Your task to perform on an android device: Open the map Image 0: 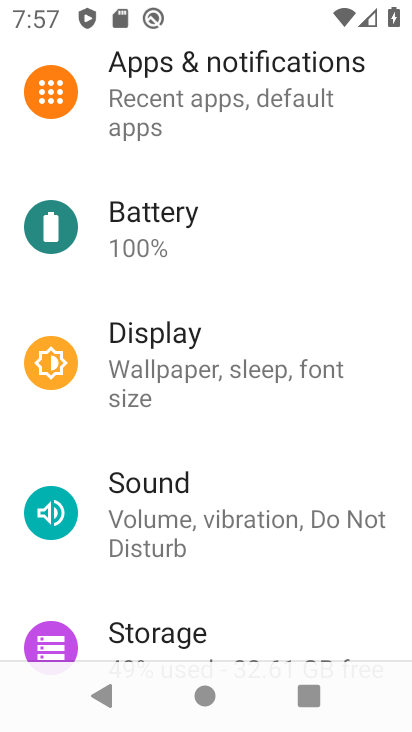
Step 0: press home button
Your task to perform on an android device: Open the map Image 1: 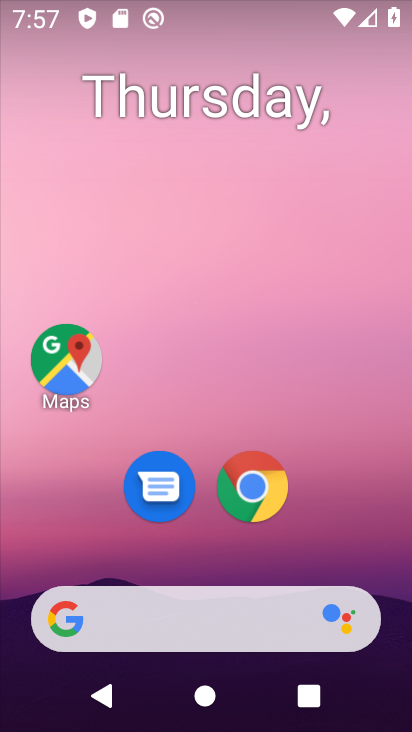
Step 1: click (264, 14)
Your task to perform on an android device: Open the map Image 2: 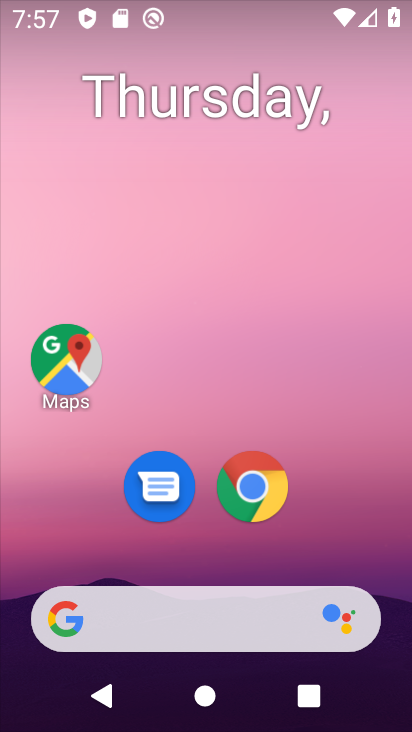
Step 2: drag from (196, 621) to (265, 98)
Your task to perform on an android device: Open the map Image 3: 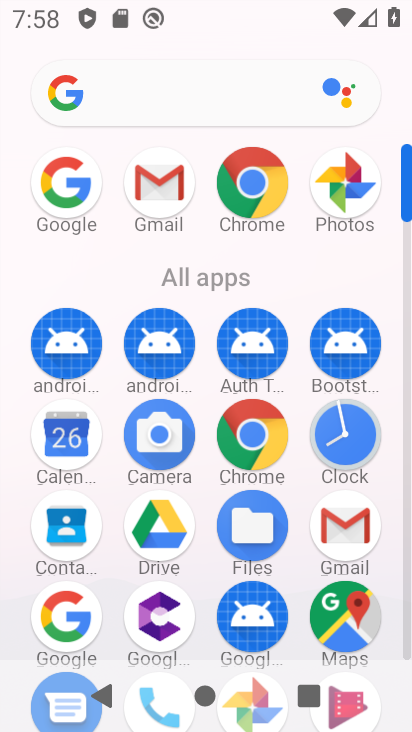
Step 3: click (371, 613)
Your task to perform on an android device: Open the map Image 4: 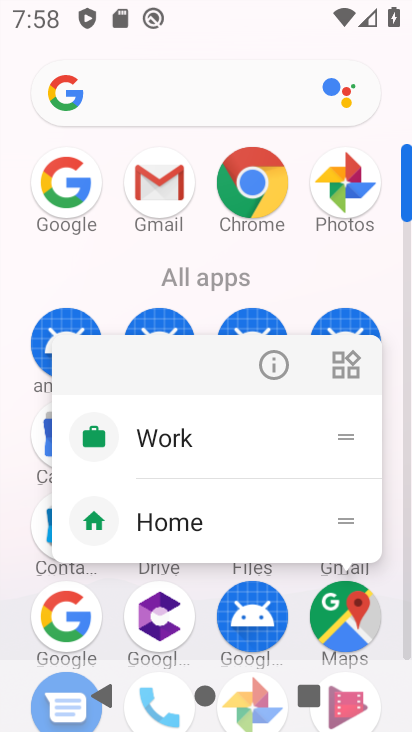
Step 4: click (373, 610)
Your task to perform on an android device: Open the map Image 5: 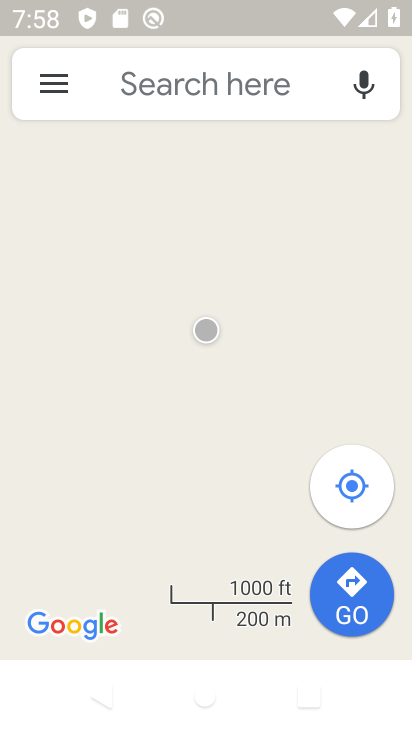
Step 5: task complete